Your task to perform on an android device: Is it going to rain today? Image 0: 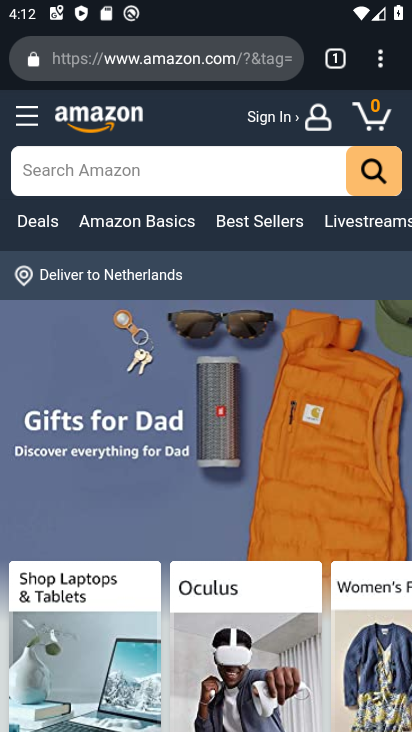
Step 0: press home button
Your task to perform on an android device: Is it going to rain today? Image 1: 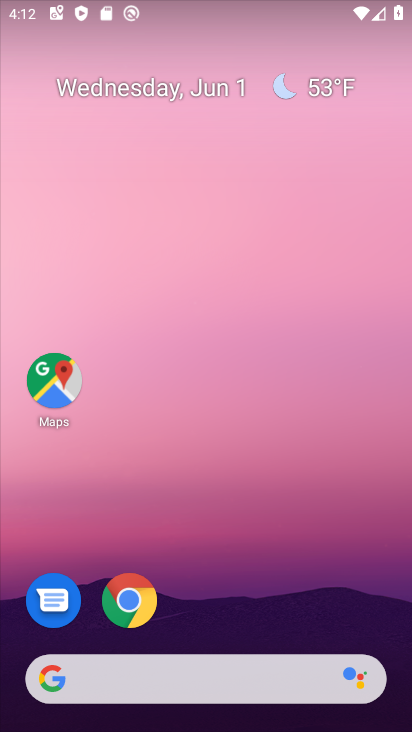
Step 1: click (328, 89)
Your task to perform on an android device: Is it going to rain today? Image 2: 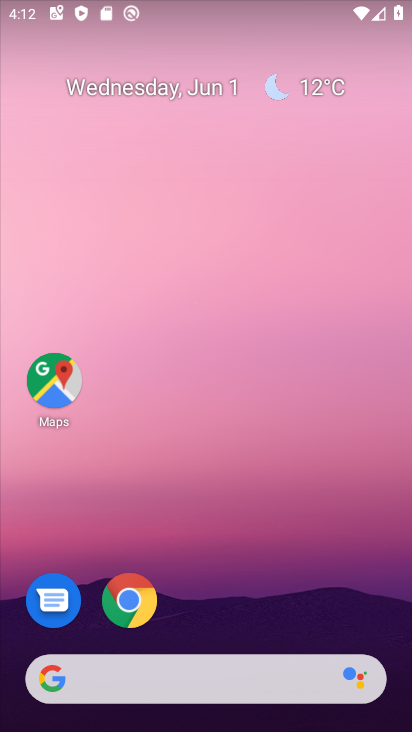
Step 2: click (320, 85)
Your task to perform on an android device: Is it going to rain today? Image 3: 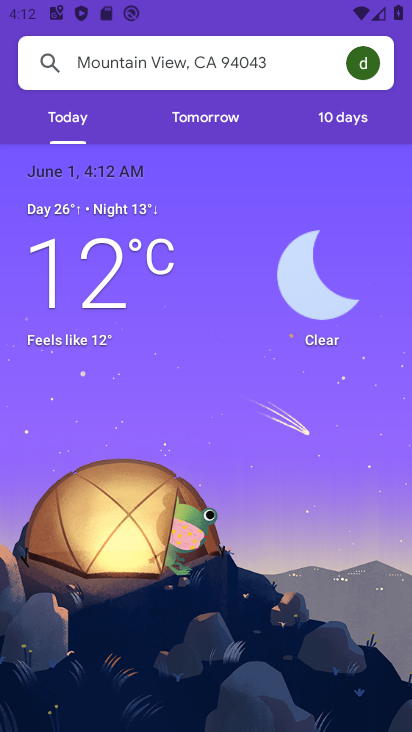
Step 3: task complete